Your task to perform on an android device: change timer sound Image 0: 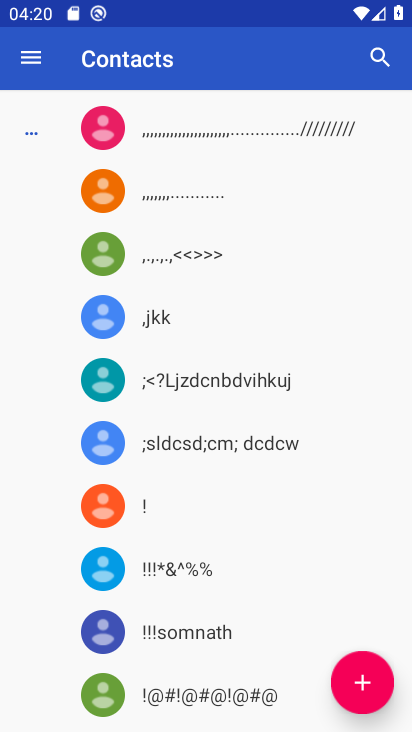
Step 0: press home button
Your task to perform on an android device: change timer sound Image 1: 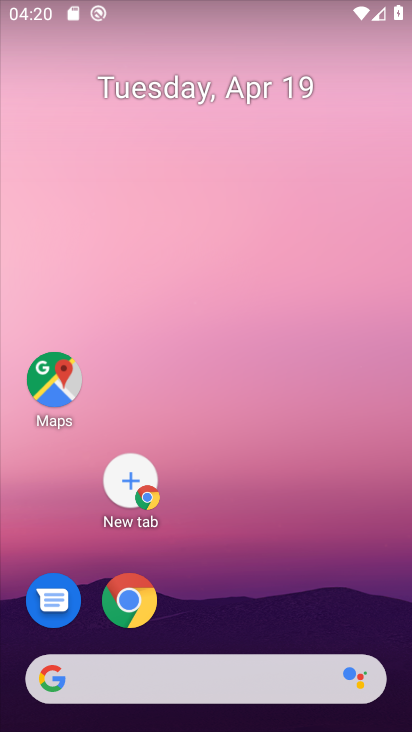
Step 1: drag from (251, 564) to (265, 14)
Your task to perform on an android device: change timer sound Image 2: 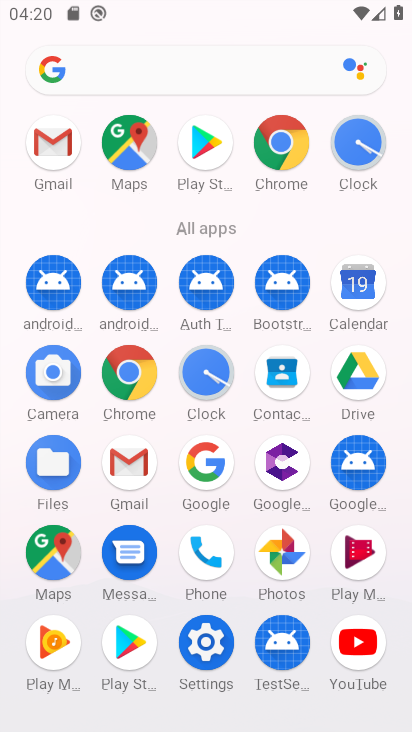
Step 2: click (193, 378)
Your task to perform on an android device: change timer sound Image 3: 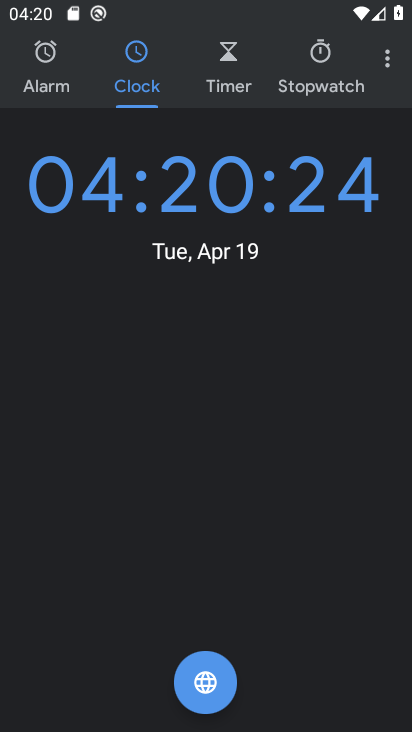
Step 3: click (391, 72)
Your task to perform on an android device: change timer sound Image 4: 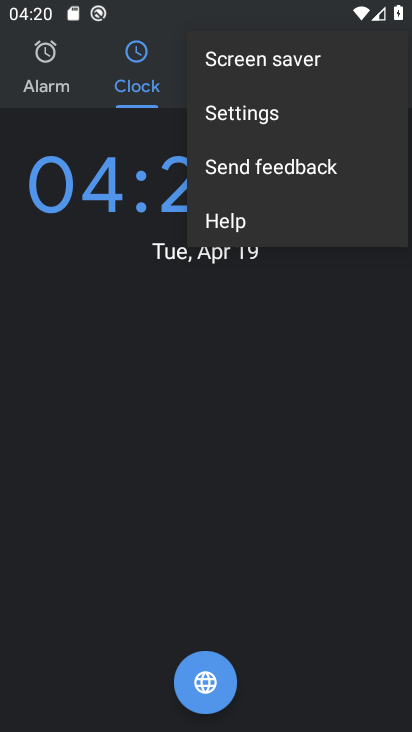
Step 4: click (254, 127)
Your task to perform on an android device: change timer sound Image 5: 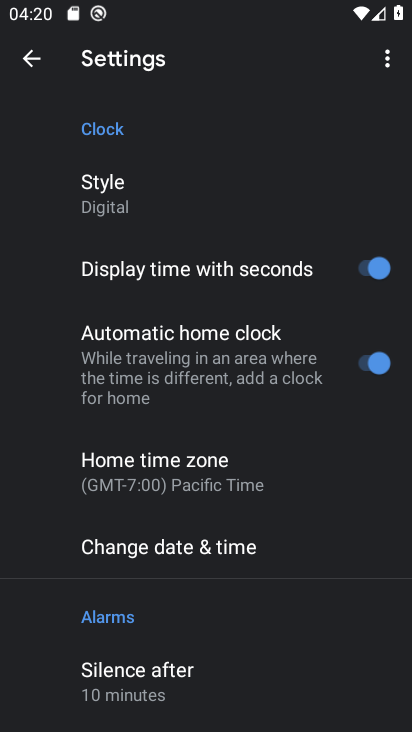
Step 5: drag from (172, 597) to (180, 148)
Your task to perform on an android device: change timer sound Image 6: 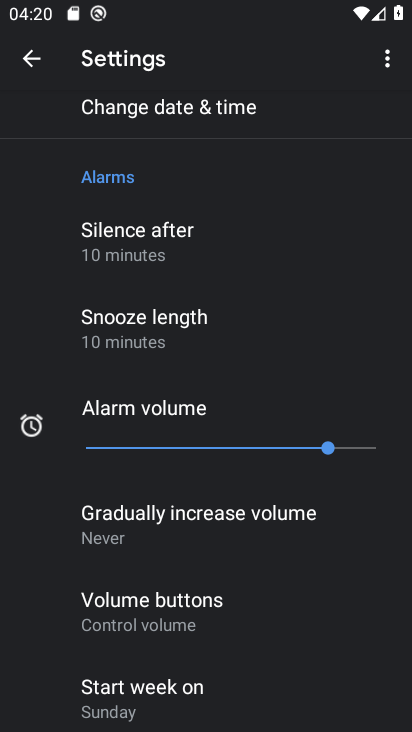
Step 6: drag from (176, 608) to (186, 159)
Your task to perform on an android device: change timer sound Image 7: 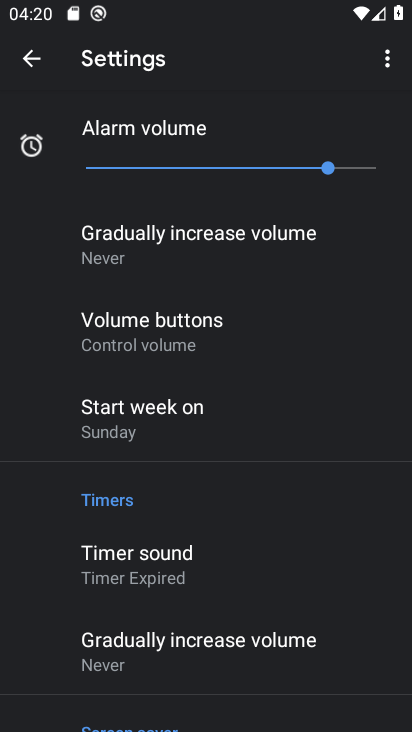
Step 7: click (153, 559)
Your task to perform on an android device: change timer sound Image 8: 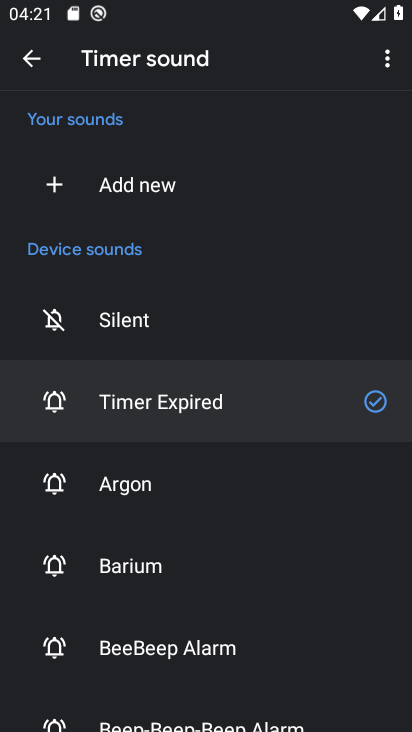
Step 8: click (101, 597)
Your task to perform on an android device: change timer sound Image 9: 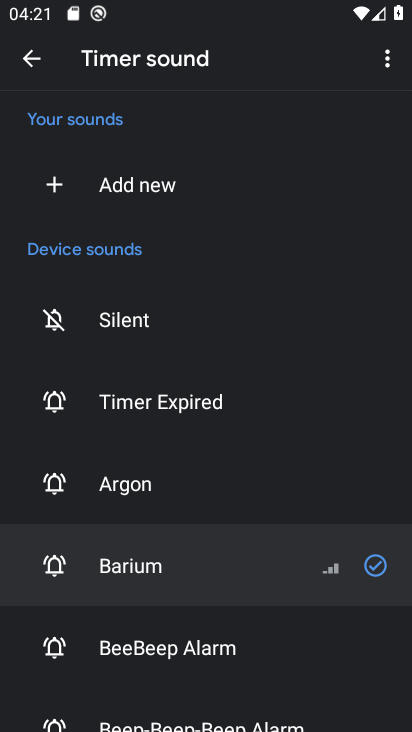
Step 9: task complete